Your task to perform on an android device: Is it going to rain tomorrow? Image 0: 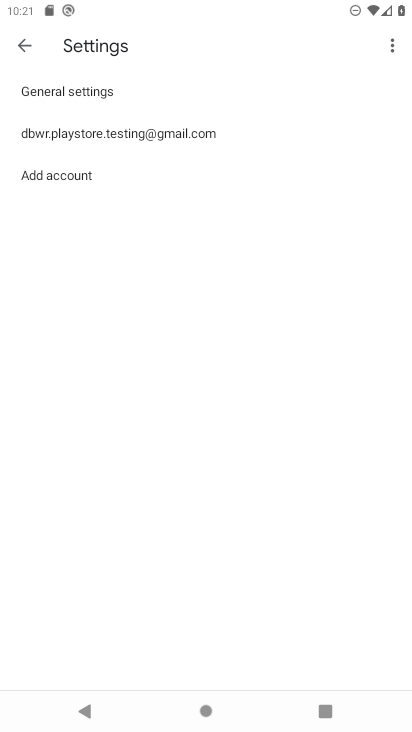
Step 0: press home button
Your task to perform on an android device: Is it going to rain tomorrow? Image 1: 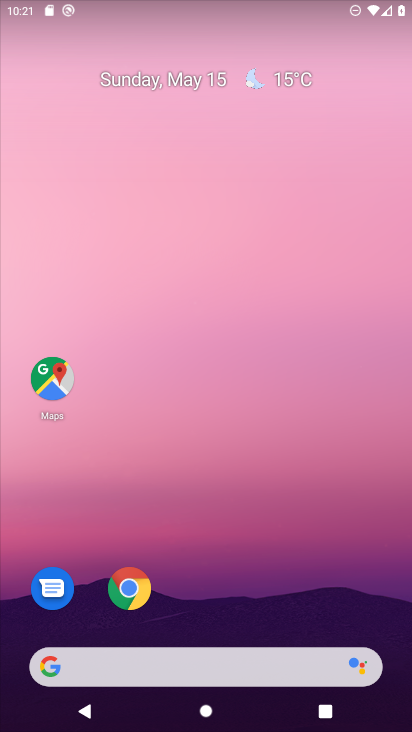
Step 1: click (212, 613)
Your task to perform on an android device: Is it going to rain tomorrow? Image 2: 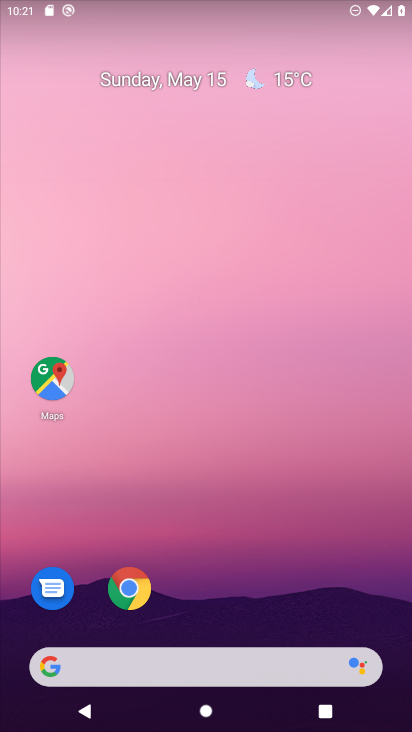
Step 2: click (289, 78)
Your task to perform on an android device: Is it going to rain tomorrow? Image 3: 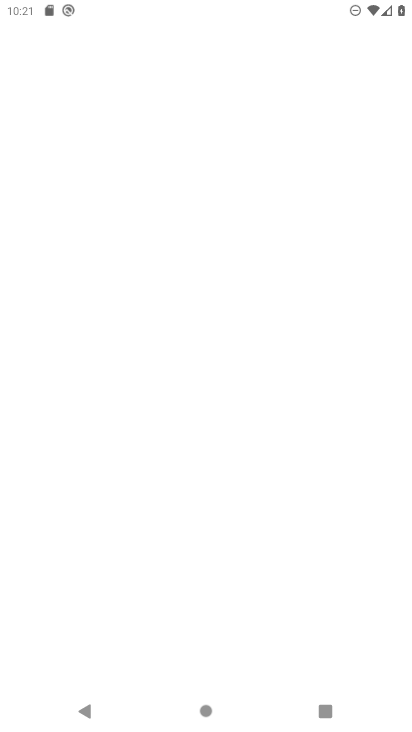
Step 3: click (311, 601)
Your task to perform on an android device: Is it going to rain tomorrow? Image 4: 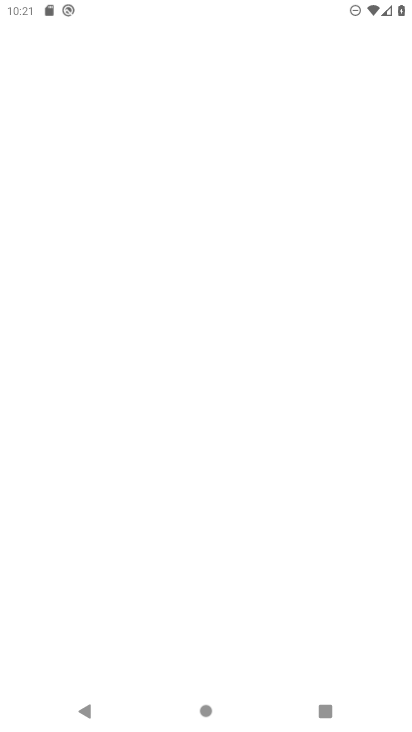
Step 4: press back button
Your task to perform on an android device: Is it going to rain tomorrow? Image 5: 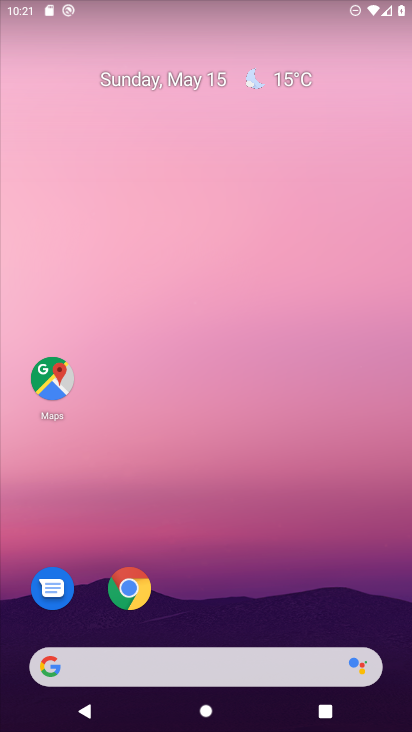
Step 5: click (333, 76)
Your task to perform on an android device: Is it going to rain tomorrow? Image 6: 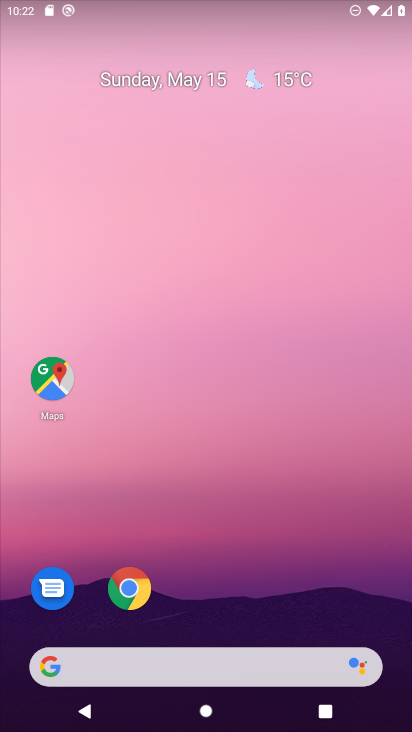
Step 6: click (286, 85)
Your task to perform on an android device: Is it going to rain tomorrow? Image 7: 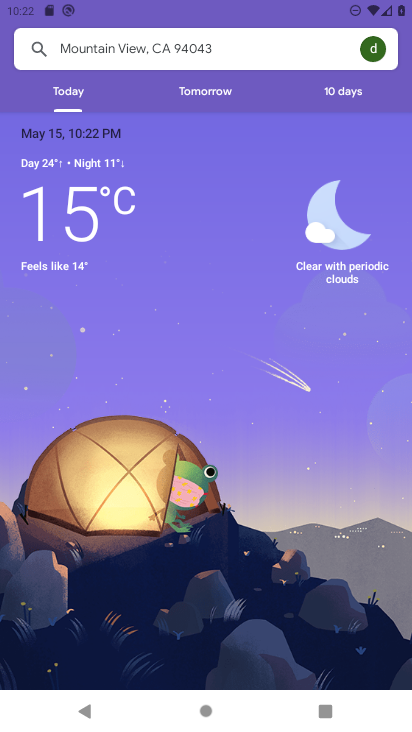
Step 7: click (201, 85)
Your task to perform on an android device: Is it going to rain tomorrow? Image 8: 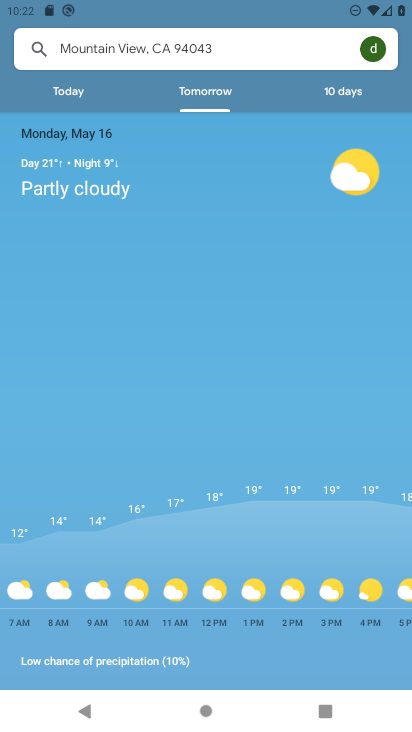
Step 8: task complete